Your task to perform on an android device: turn on airplane mode Image 0: 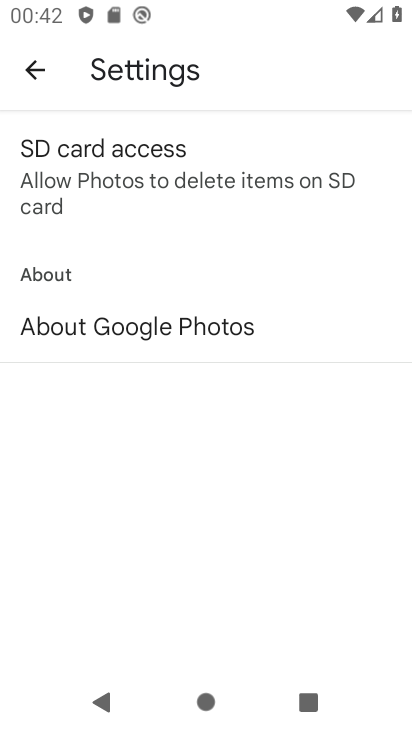
Step 0: press home button
Your task to perform on an android device: turn on airplane mode Image 1: 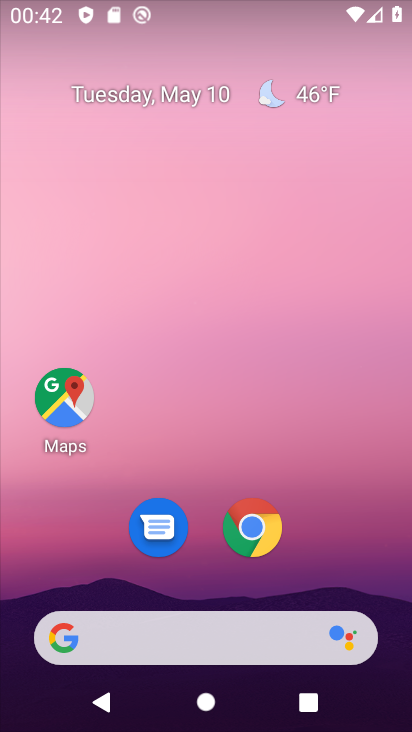
Step 1: drag from (317, 563) to (146, 202)
Your task to perform on an android device: turn on airplane mode Image 2: 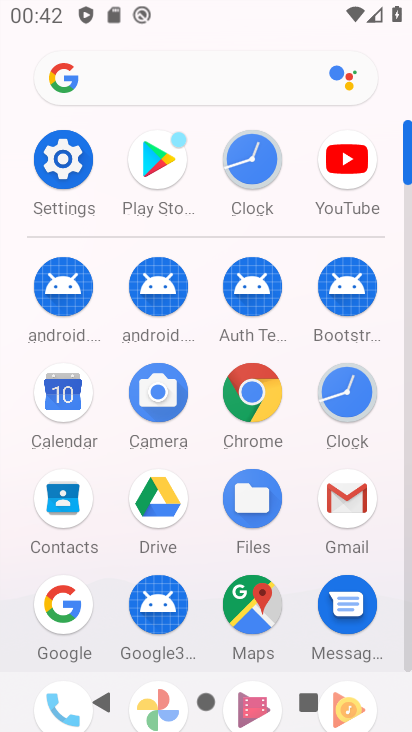
Step 2: click (68, 177)
Your task to perform on an android device: turn on airplane mode Image 3: 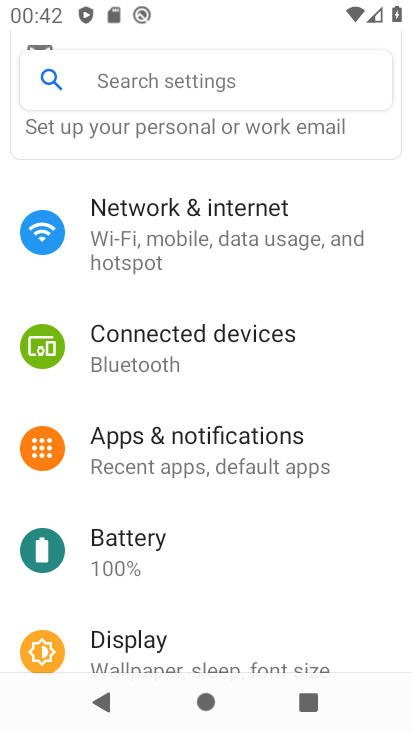
Step 3: click (213, 249)
Your task to perform on an android device: turn on airplane mode Image 4: 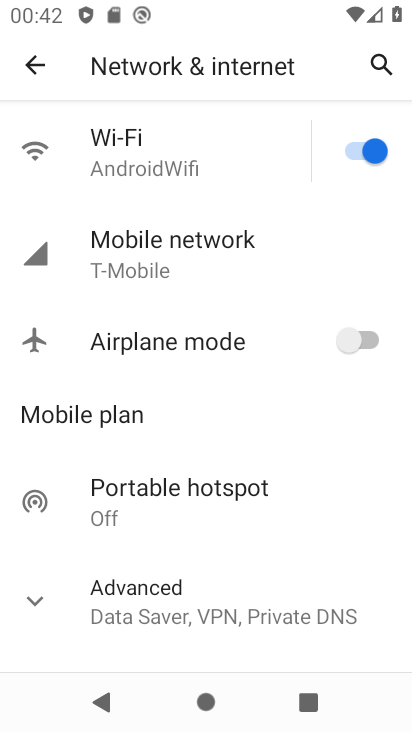
Step 4: click (360, 329)
Your task to perform on an android device: turn on airplane mode Image 5: 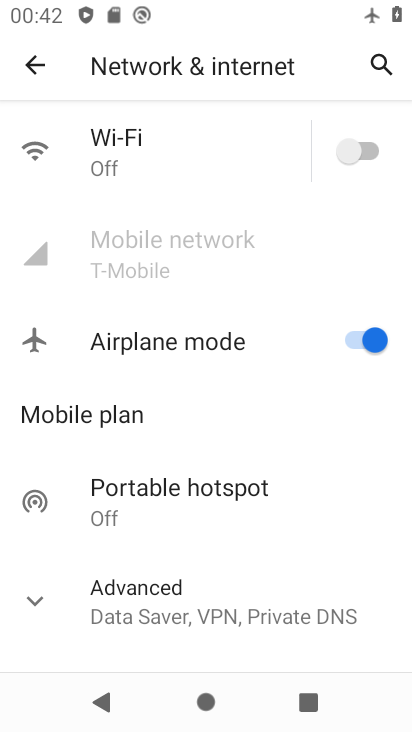
Step 5: task complete